Your task to perform on an android device: toggle pop-ups in chrome Image 0: 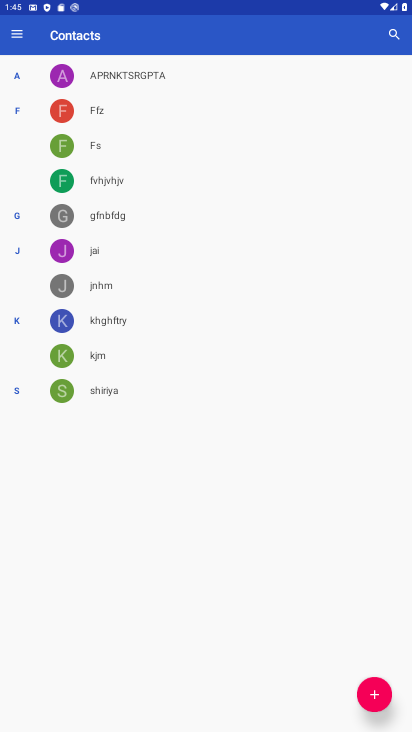
Step 0: press back button
Your task to perform on an android device: toggle pop-ups in chrome Image 1: 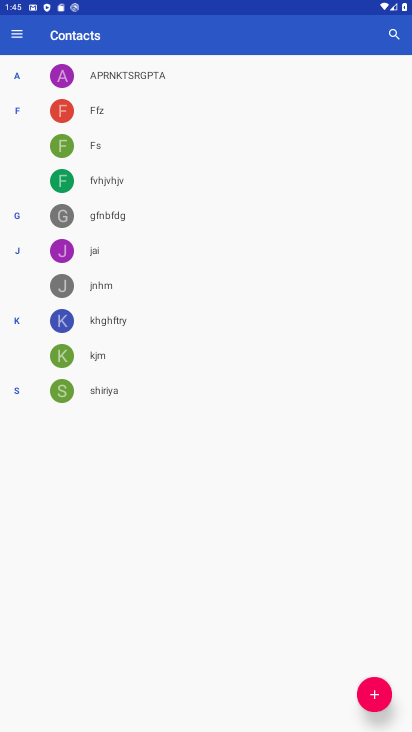
Step 1: press back button
Your task to perform on an android device: toggle pop-ups in chrome Image 2: 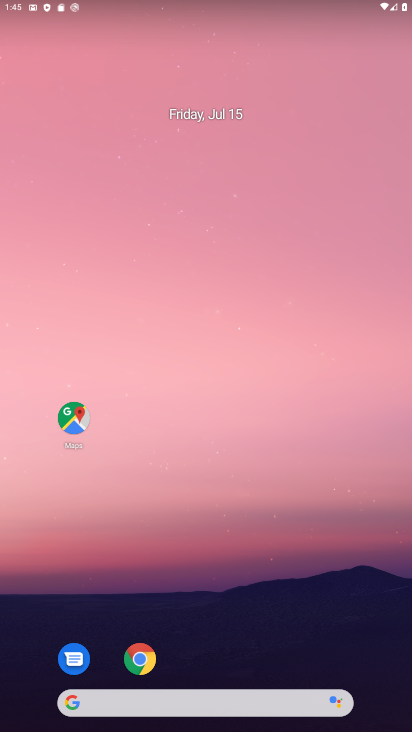
Step 2: drag from (221, 613) to (231, 362)
Your task to perform on an android device: toggle pop-ups in chrome Image 3: 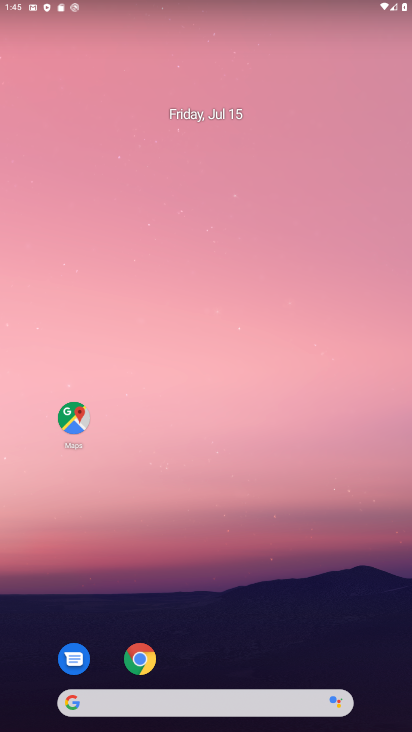
Step 3: drag from (211, 506) to (170, 57)
Your task to perform on an android device: toggle pop-ups in chrome Image 4: 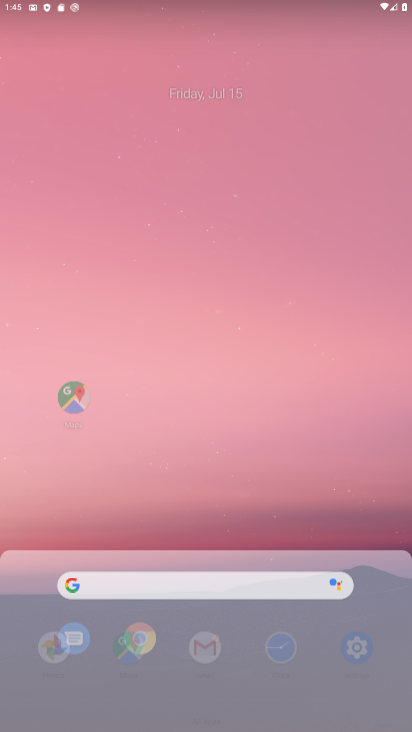
Step 4: drag from (202, 524) to (173, 202)
Your task to perform on an android device: toggle pop-ups in chrome Image 5: 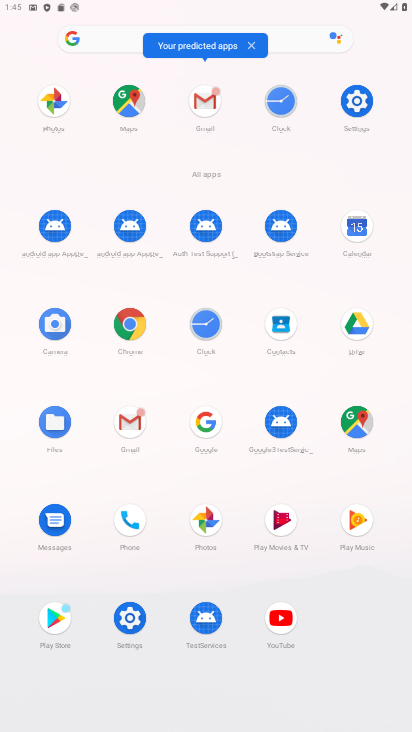
Step 5: click (118, 323)
Your task to perform on an android device: toggle pop-ups in chrome Image 6: 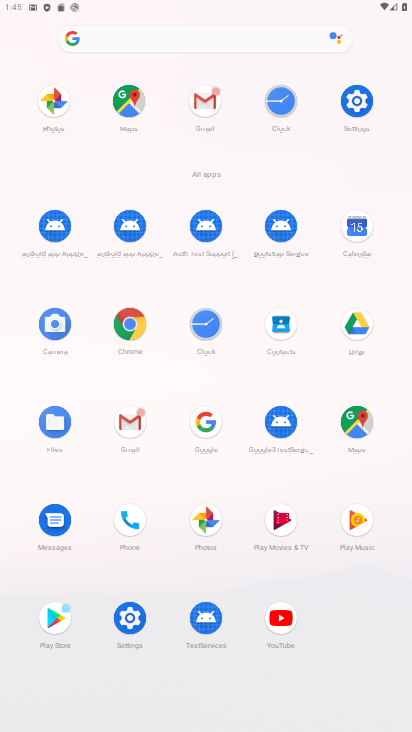
Step 6: click (120, 323)
Your task to perform on an android device: toggle pop-ups in chrome Image 7: 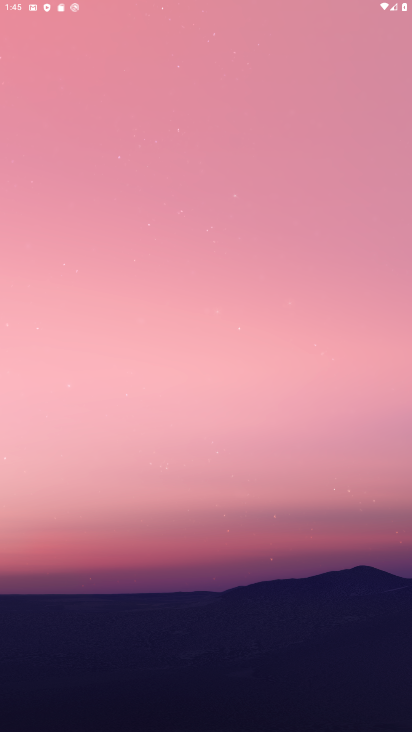
Step 7: click (129, 322)
Your task to perform on an android device: toggle pop-ups in chrome Image 8: 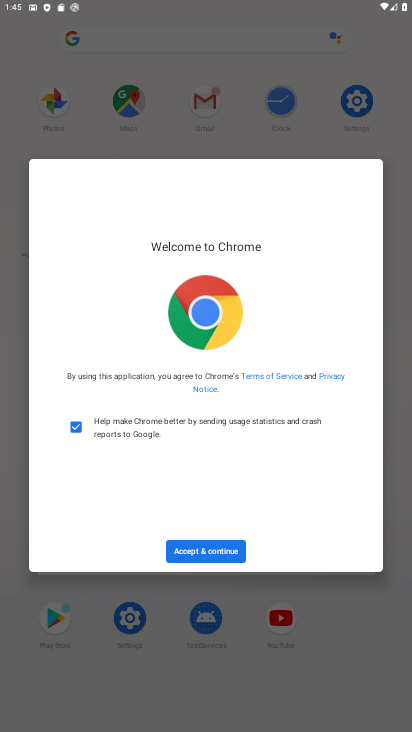
Step 8: click (198, 555)
Your task to perform on an android device: toggle pop-ups in chrome Image 9: 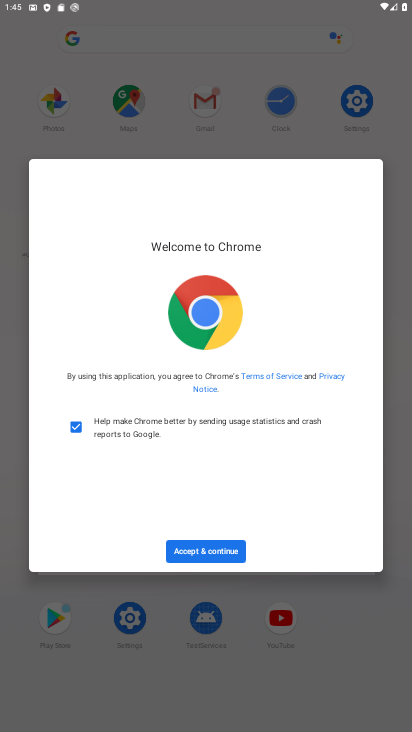
Step 9: click (192, 553)
Your task to perform on an android device: toggle pop-ups in chrome Image 10: 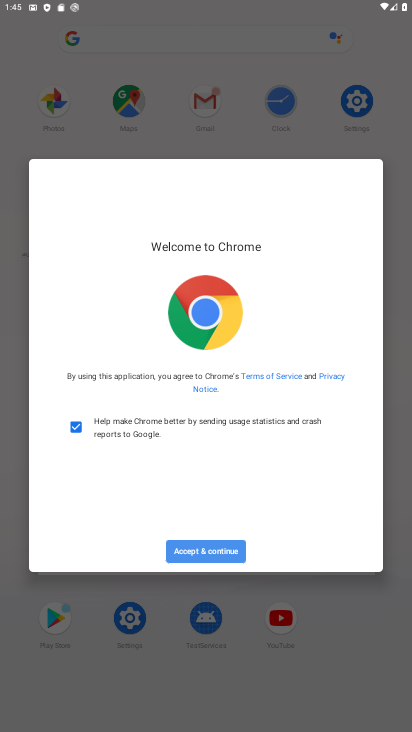
Step 10: click (230, 561)
Your task to perform on an android device: toggle pop-ups in chrome Image 11: 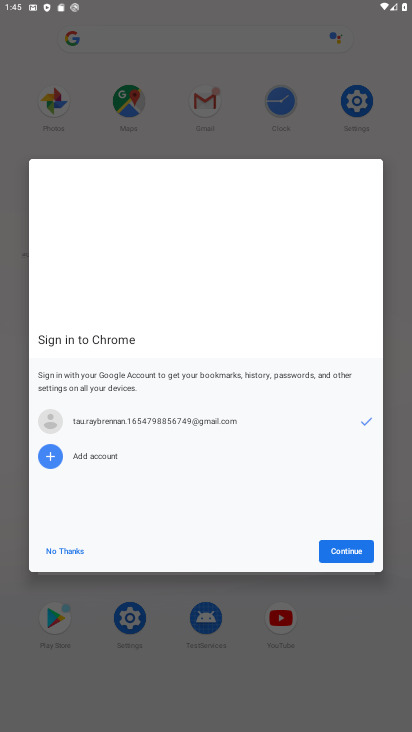
Step 11: click (214, 550)
Your task to perform on an android device: toggle pop-ups in chrome Image 12: 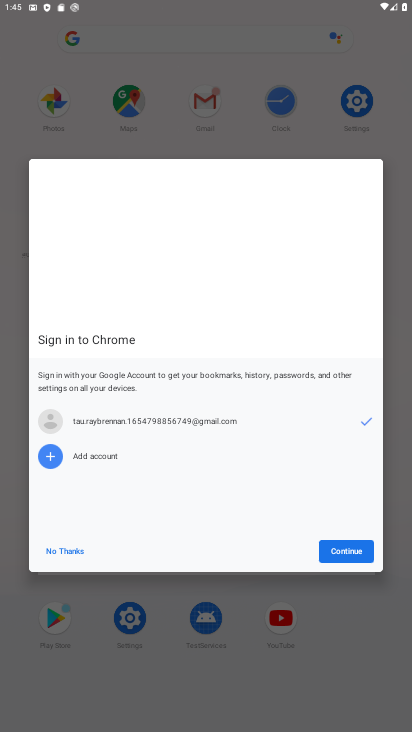
Step 12: click (340, 543)
Your task to perform on an android device: toggle pop-ups in chrome Image 13: 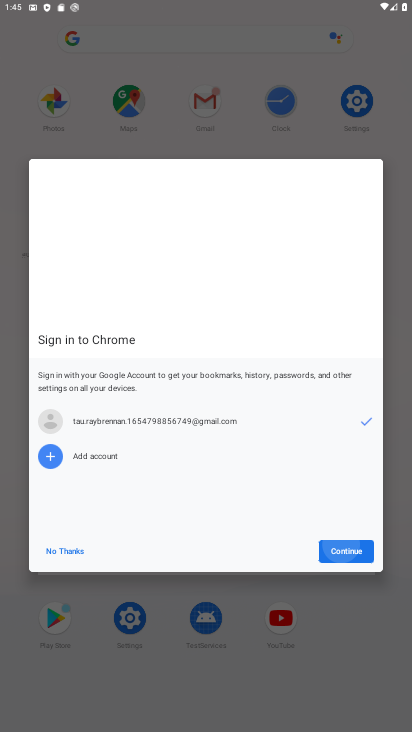
Step 13: click (337, 536)
Your task to perform on an android device: toggle pop-ups in chrome Image 14: 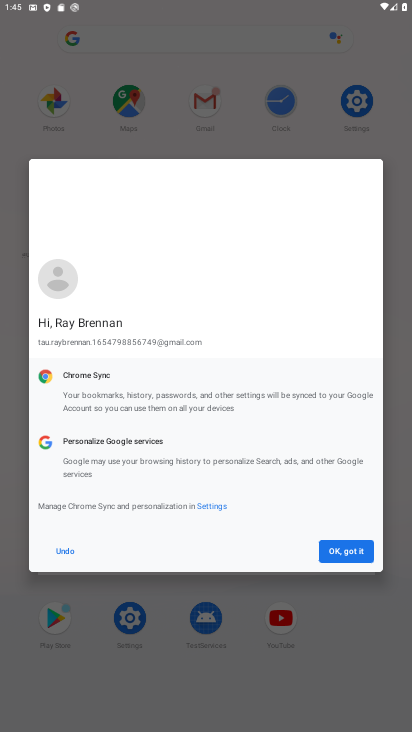
Step 14: click (358, 563)
Your task to perform on an android device: toggle pop-ups in chrome Image 15: 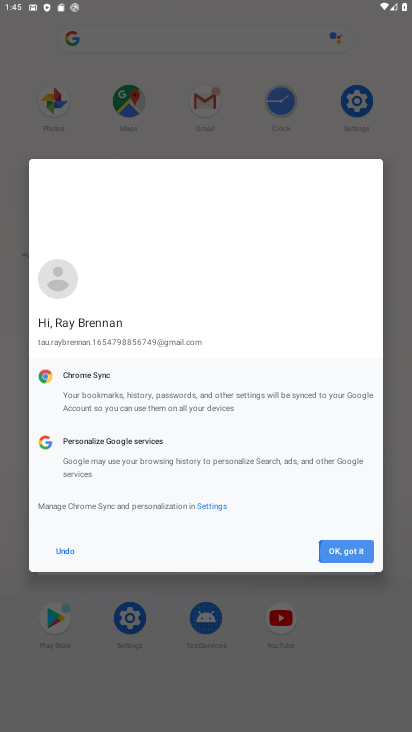
Step 15: click (356, 555)
Your task to perform on an android device: toggle pop-ups in chrome Image 16: 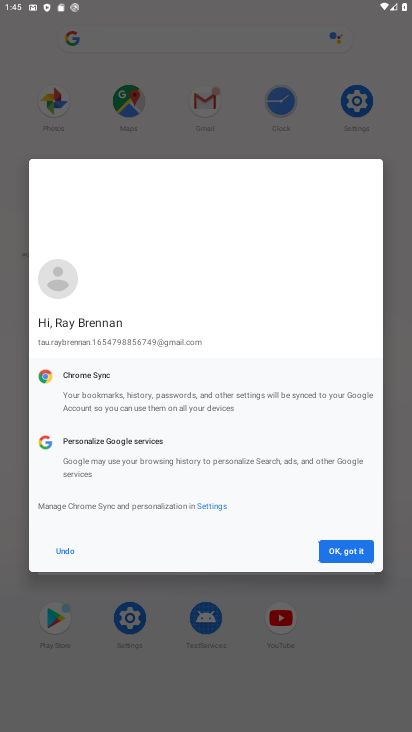
Step 16: click (355, 552)
Your task to perform on an android device: toggle pop-ups in chrome Image 17: 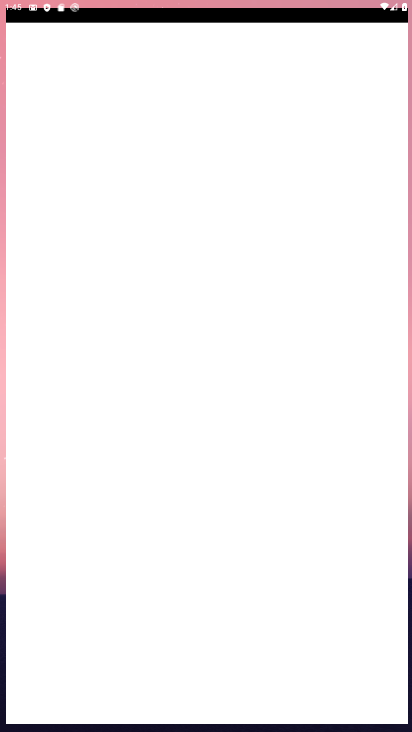
Step 17: click (356, 551)
Your task to perform on an android device: toggle pop-ups in chrome Image 18: 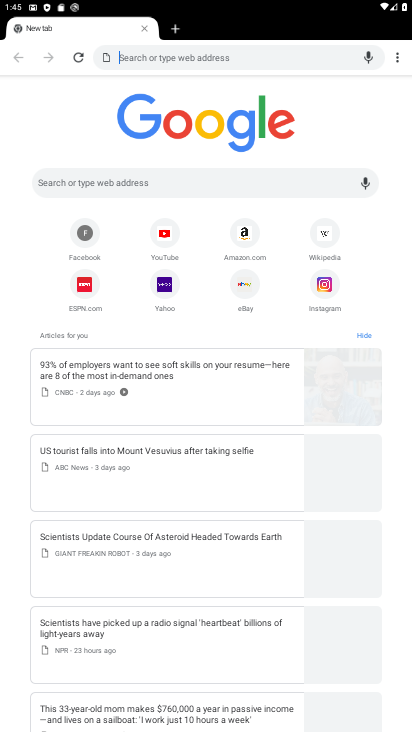
Step 18: click (402, 58)
Your task to perform on an android device: toggle pop-ups in chrome Image 19: 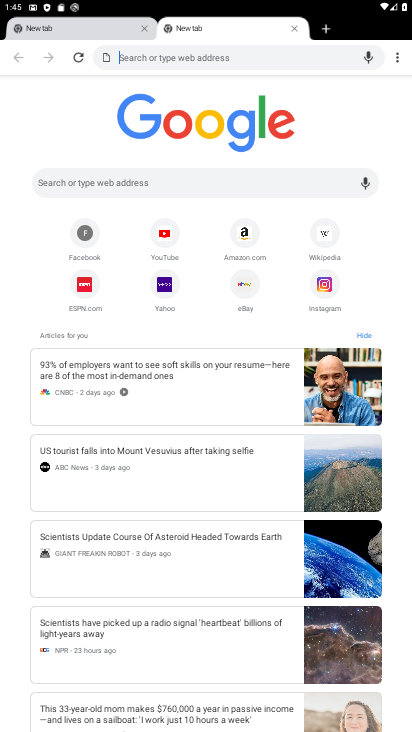
Step 19: drag from (408, 39) to (383, 202)
Your task to perform on an android device: toggle pop-ups in chrome Image 20: 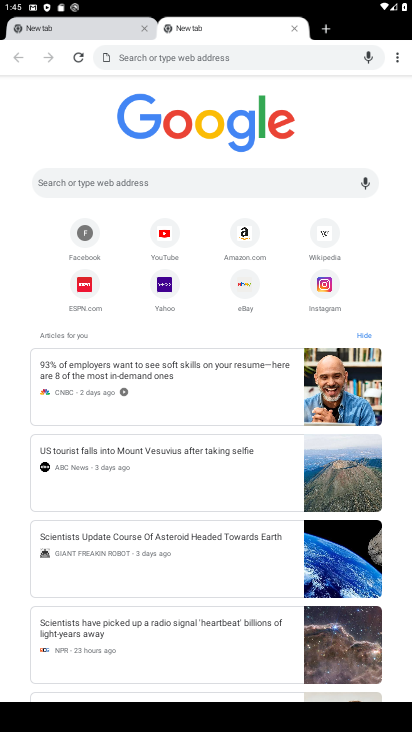
Step 20: drag from (400, 54) to (274, 266)
Your task to perform on an android device: toggle pop-ups in chrome Image 21: 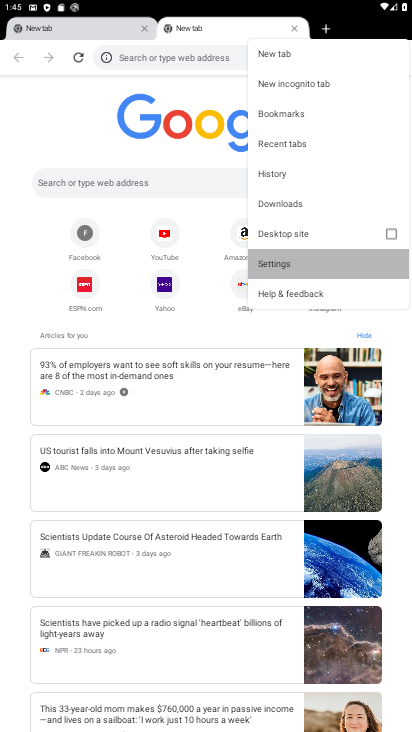
Step 21: click (274, 268)
Your task to perform on an android device: toggle pop-ups in chrome Image 22: 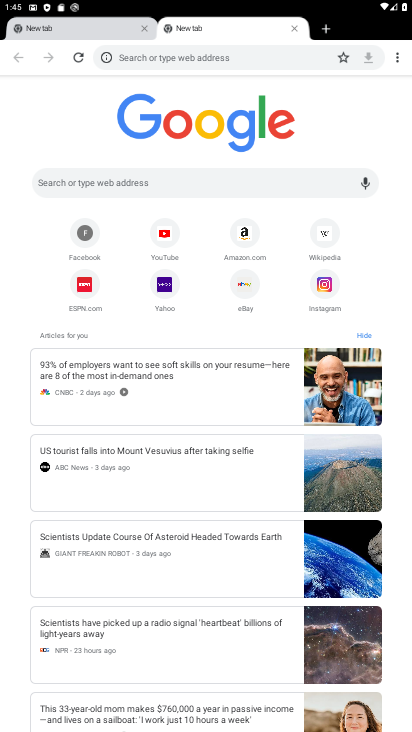
Step 22: click (274, 268)
Your task to perform on an android device: toggle pop-ups in chrome Image 23: 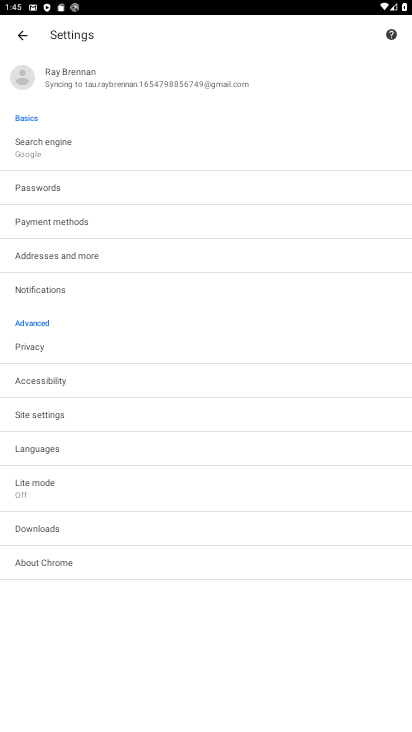
Step 23: click (34, 411)
Your task to perform on an android device: toggle pop-ups in chrome Image 24: 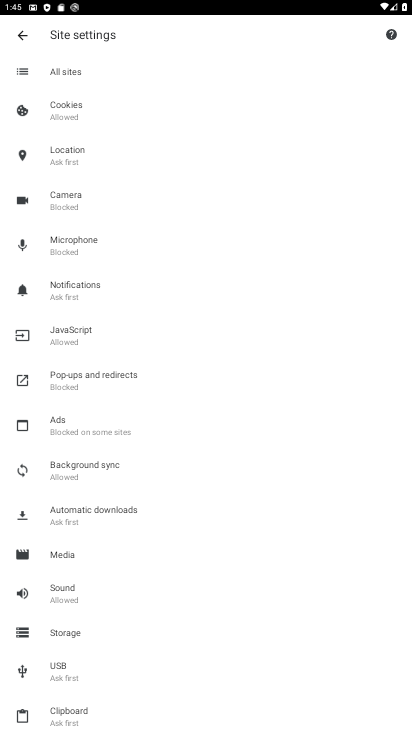
Step 24: click (71, 385)
Your task to perform on an android device: toggle pop-ups in chrome Image 25: 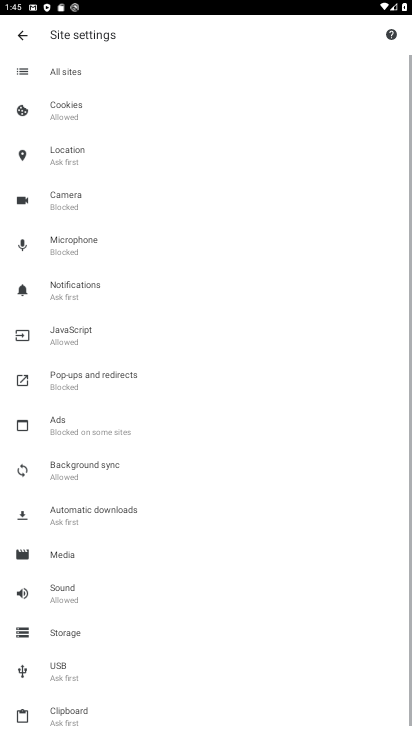
Step 25: click (67, 376)
Your task to perform on an android device: toggle pop-ups in chrome Image 26: 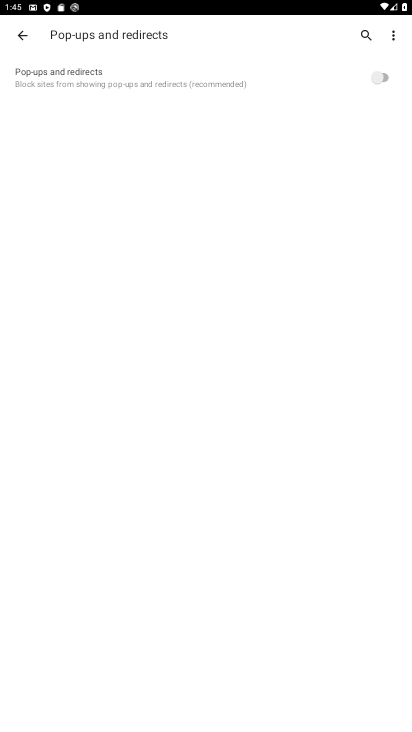
Step 26: click (375, 71)
Your task to perform on an android device: toggle pop-ups in chrome Image 27: 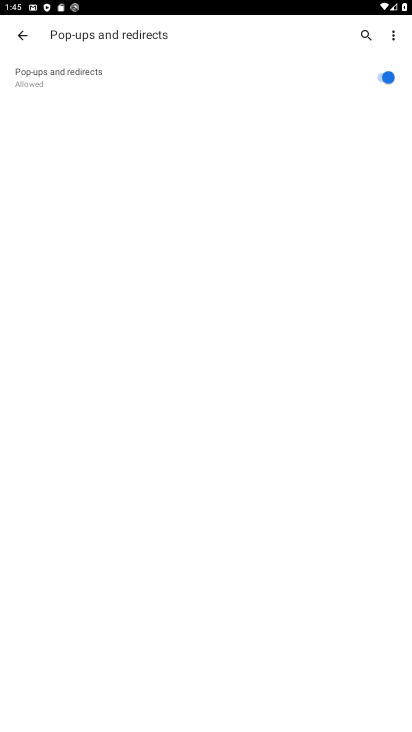
Step 27: task complete